Your task to perform on an android device: Open Chrome and go to the settings page Image 0: 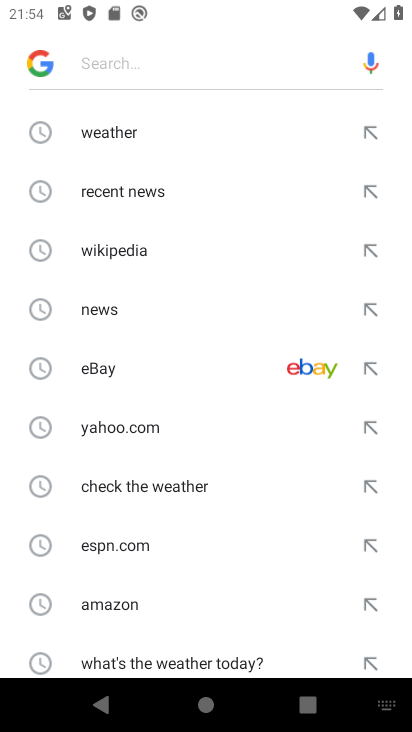
Step 0: press home button
Your task to perform on an android device: Open Chrome and go to the settings page Image 1: 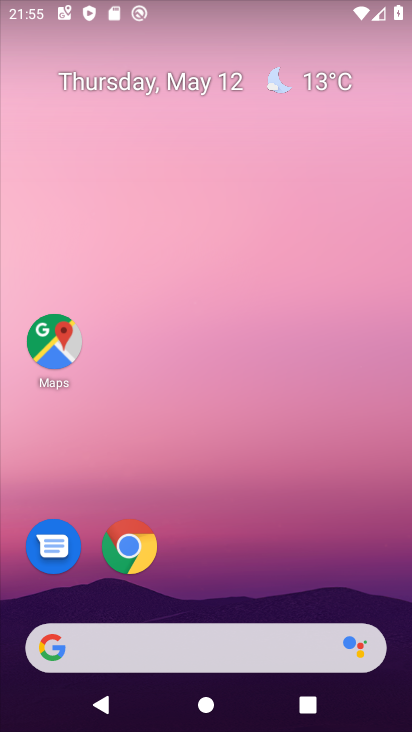
Step 1: click (133, 547)
Your task to perform on an android device: Open Chrome and go to the settings page Image 2: 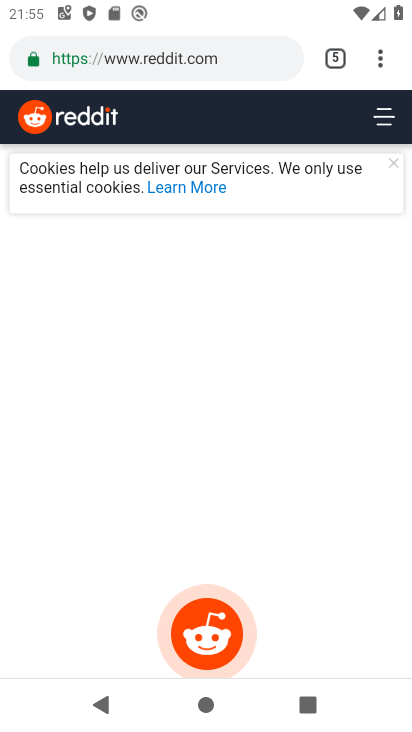
Step 2: task complete